Your task to perform on an android device: turn on airplane mode Image 0: 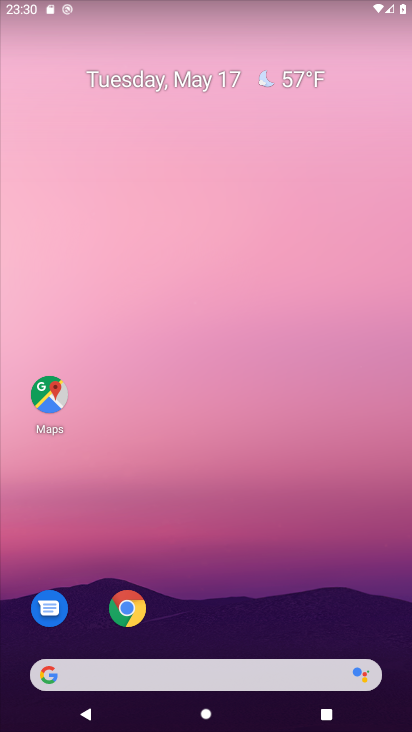
Step 0: drag from (221, 613) to (231, 185)
Your task to perform on an android device: turn on airplane mode Image 1: 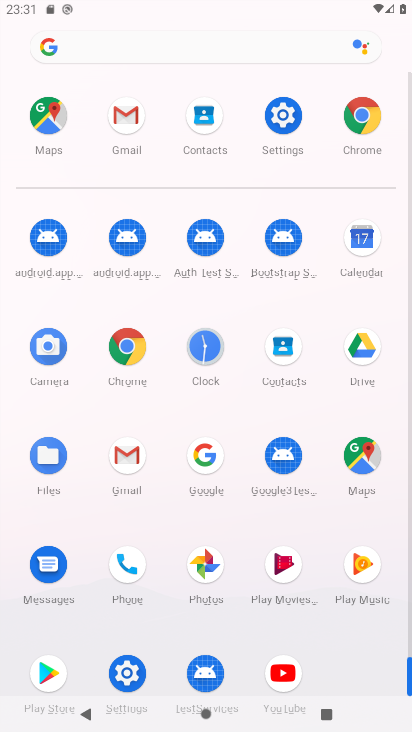
Step 1: click (296, 123)
Your task to perform on an android device: turn on airplane mode Image 2: 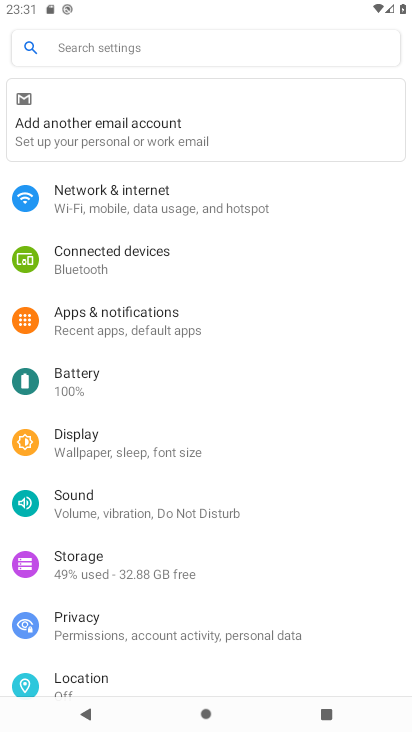
Step 2: click (177, 199)
Your task to perform on an android device: turn on airplane mode Image 3: 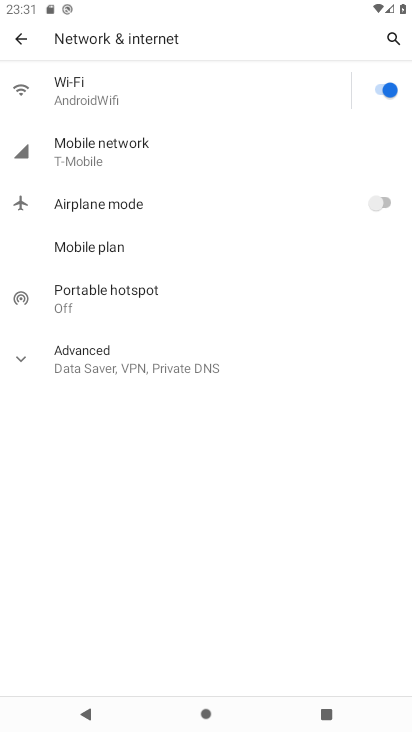
Step 3: click (381, 188)
Your task to perform on an android device: turn on airplane mode Image 4: 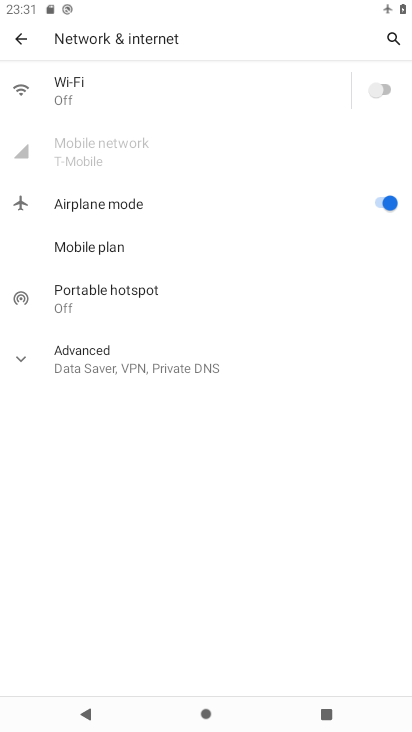
Step 4: task complete